Your task to perform on an android device: turn on bluetooth scan Image 0: 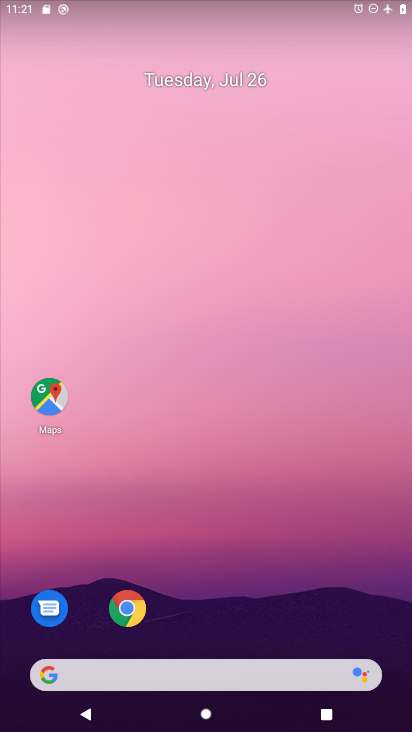
Step 0: drag from (296, 526) to (250, 2)
Your task to perform on an android device: turn on bluetooth scan Image 1: 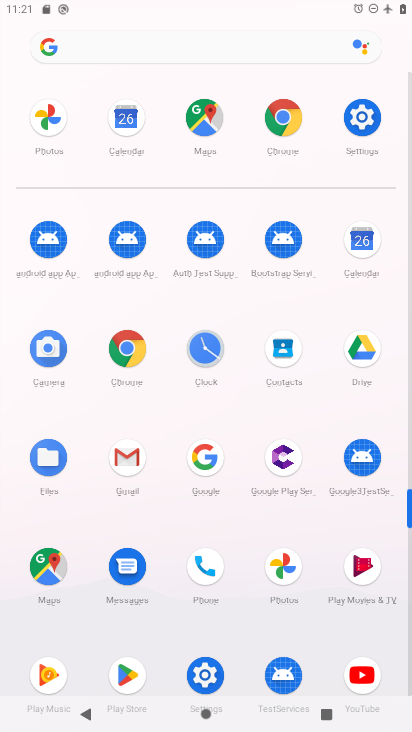
Step 1: click (361, 115)
Your task to perform on an android device: turn on bluetooth scan Image 2: 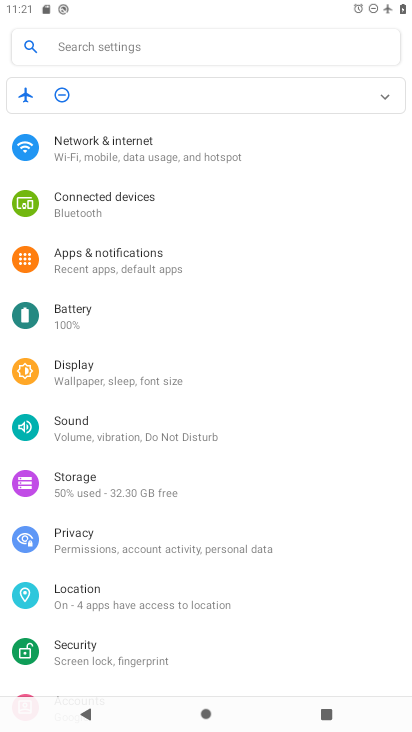
Step 2: click (152, 603)
Your task to perform on an android device: turn on bluetooth scan Image 3: 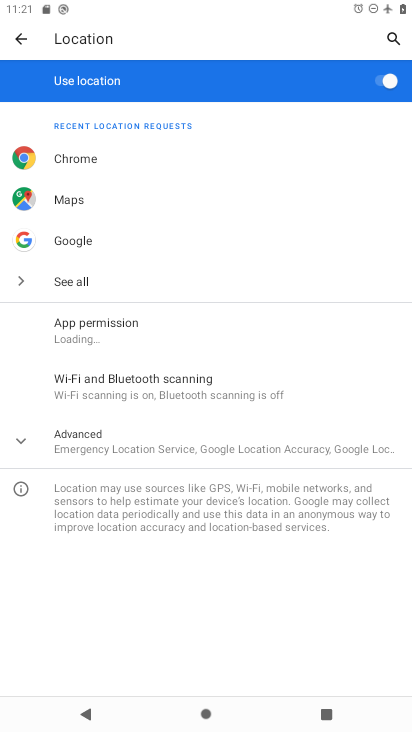
Step 3: click (179, 382)
Your task to perform on an android device: turn on bluetooth scan Image 4: 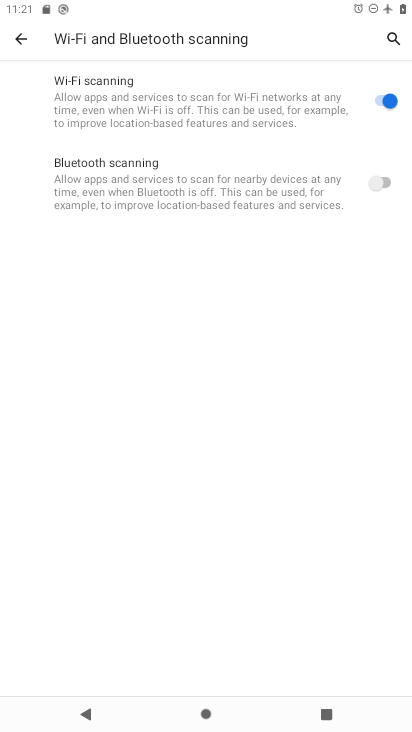
Step 4: click (313, 187)
Your task to perform on an android device: turn on bluetooth scan Image 5: 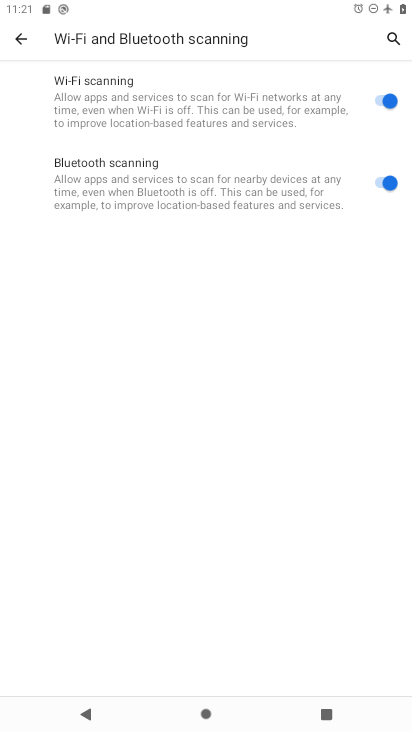
Step 5: task complete